Your task to perform on an android device: Open Google Chrome and open the bookmarks view Image 0: 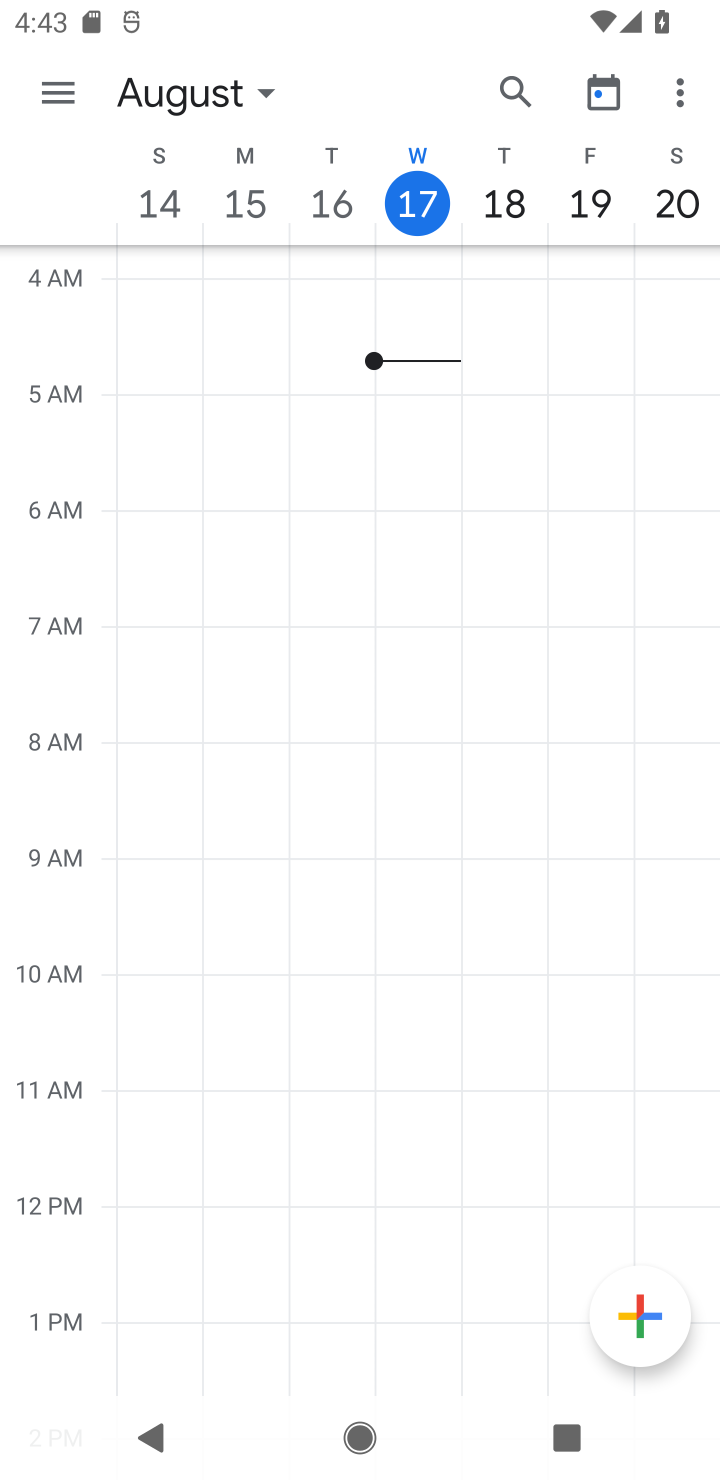
Step 0: press home button
Your task to perform on an android device: Open Google Chrome and open the bookmarks view Image 1: 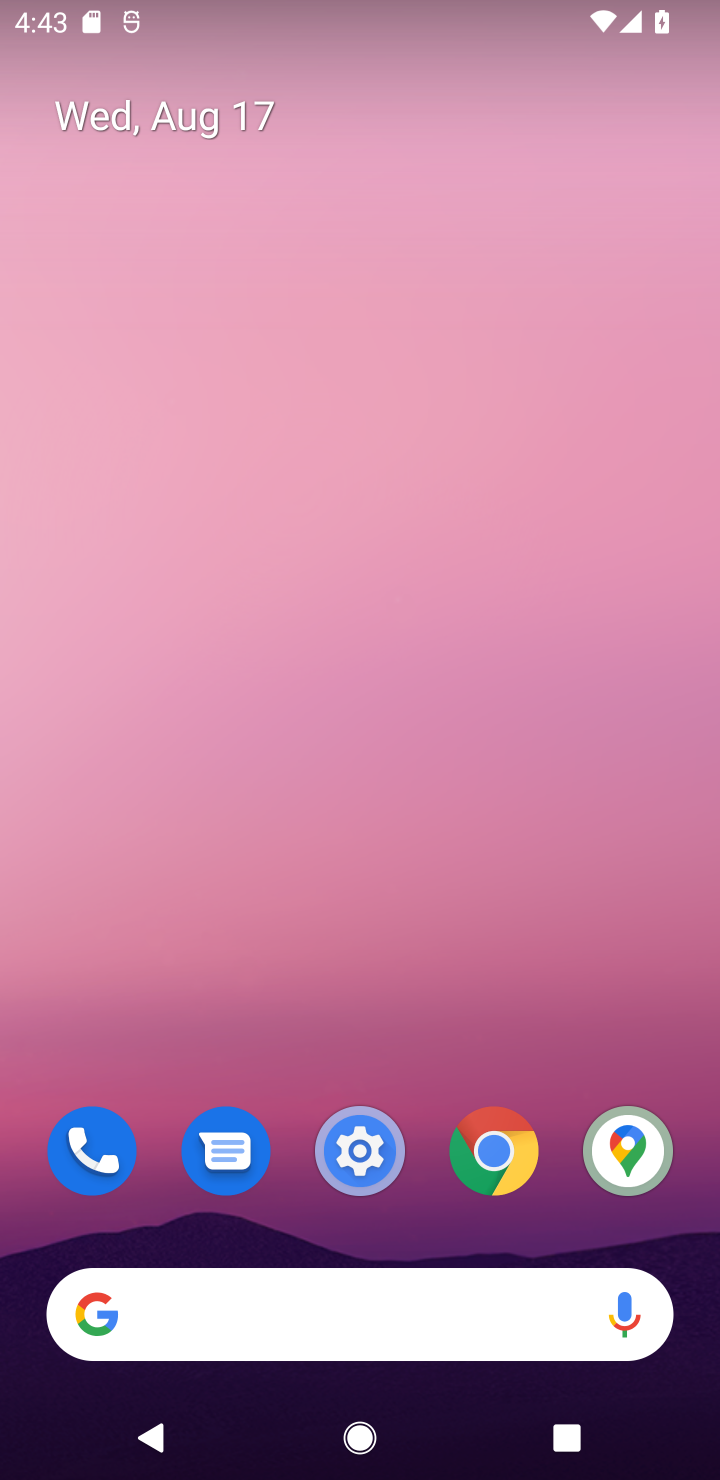
Step 1: drag from (411, 1290) to (420, 557)
Your task to perform on an android device: Open Google Chrome and open the bookmarks view Image 2: 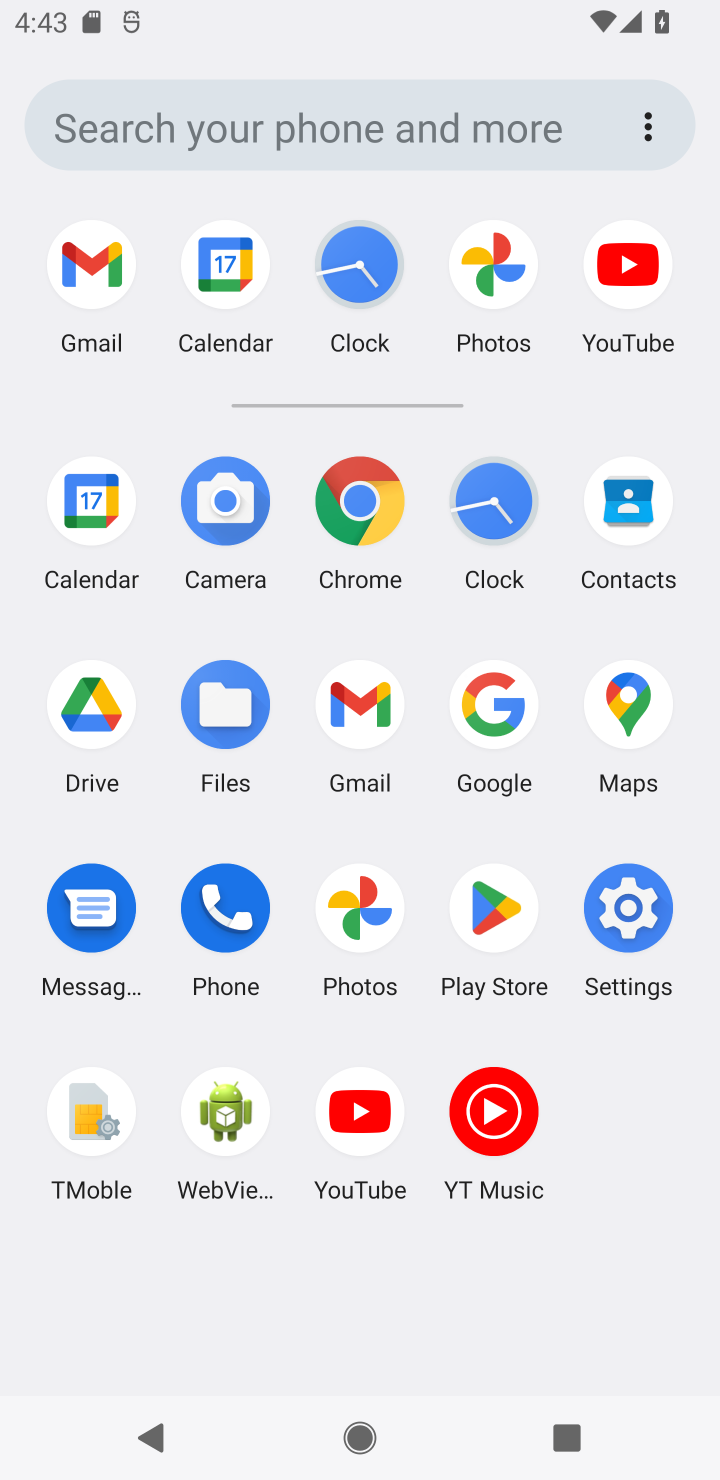
Step 2: click (359, 503)
Your task to perform on an android device: Open Google Chrome and open the bookmarks view Image 3: 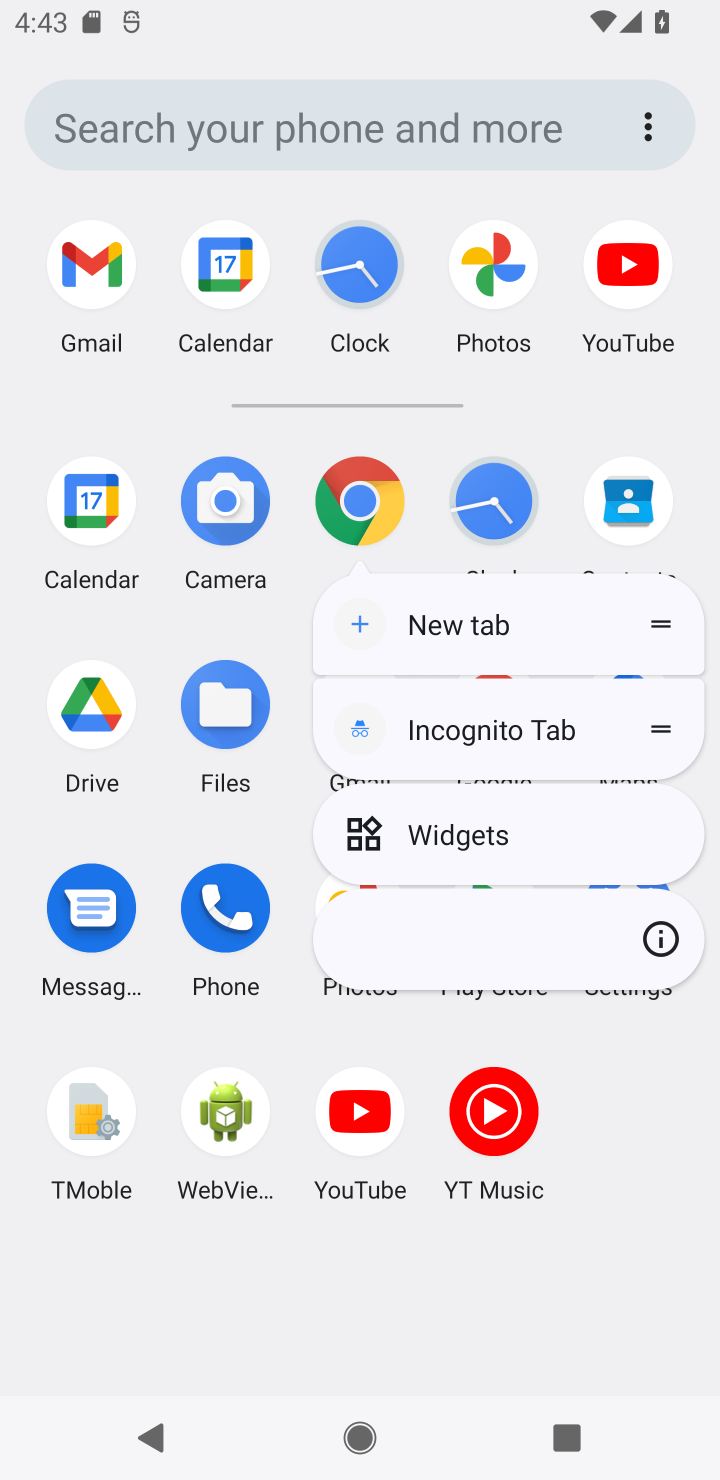
Step 3: click (359, 503)
Your task to perform on an android device: Open Google Chrome and open the bookmarks view Image 4: 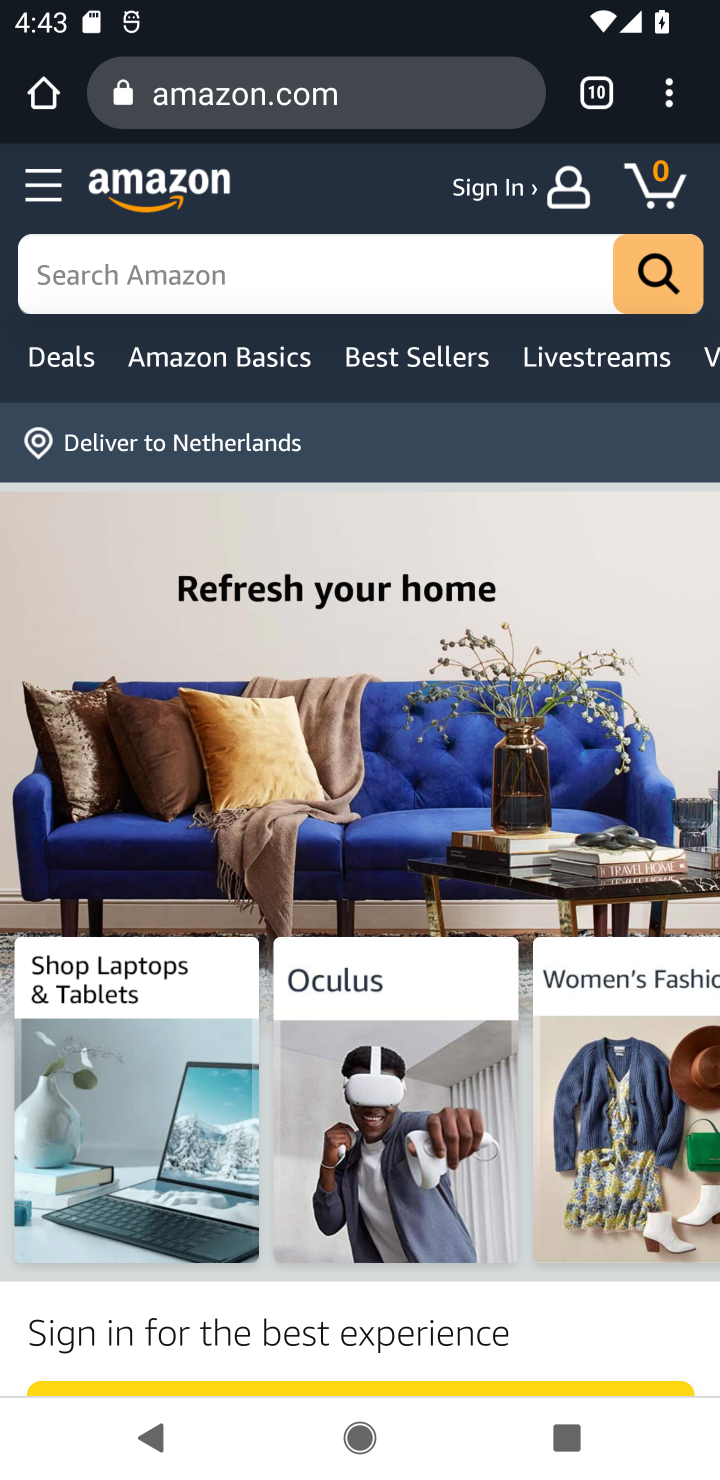
Step 4: click (682, 75)
Your task to perform on an android device: Open Google Chrome and open the bookmarks view Image 5: 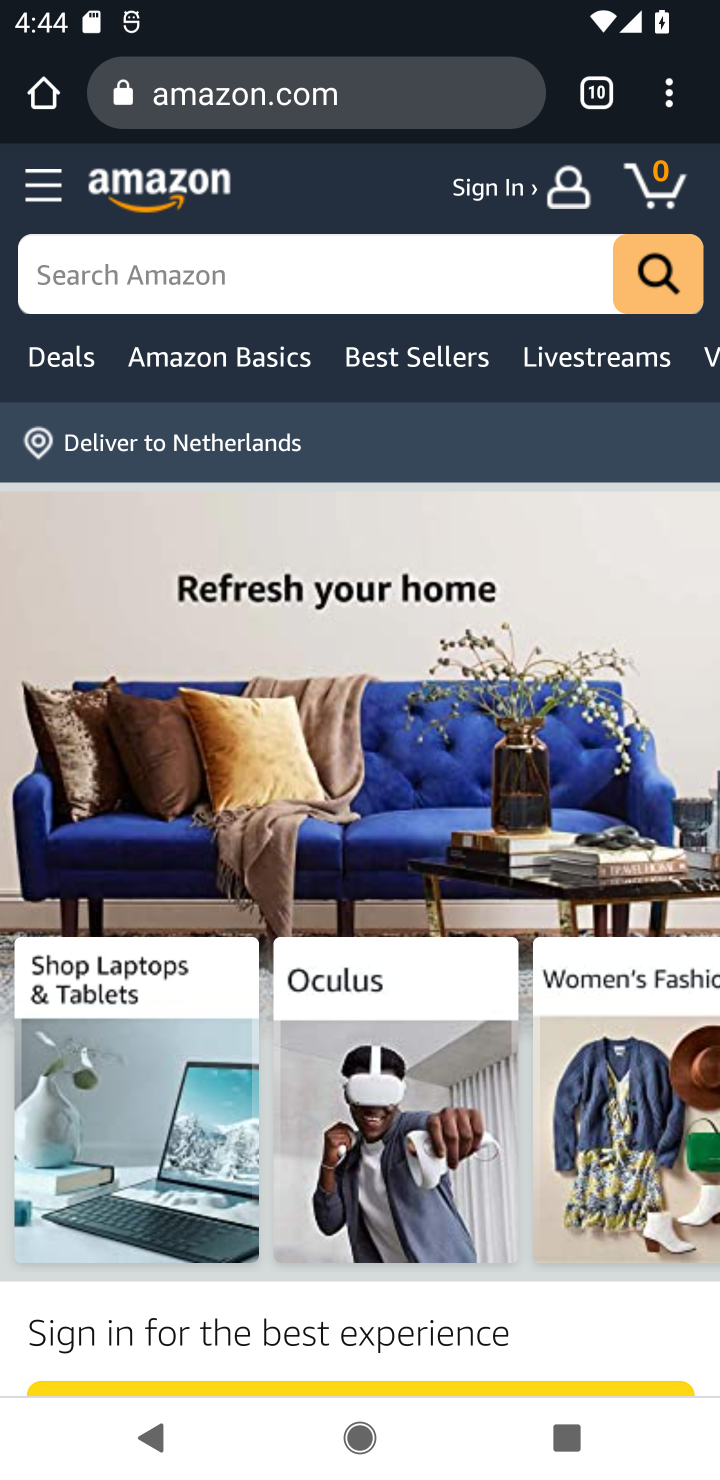
Step 5: click (693, 108)
Your task to perform on an android device: Open Google Chrome and open the bookmarks view Image 6: 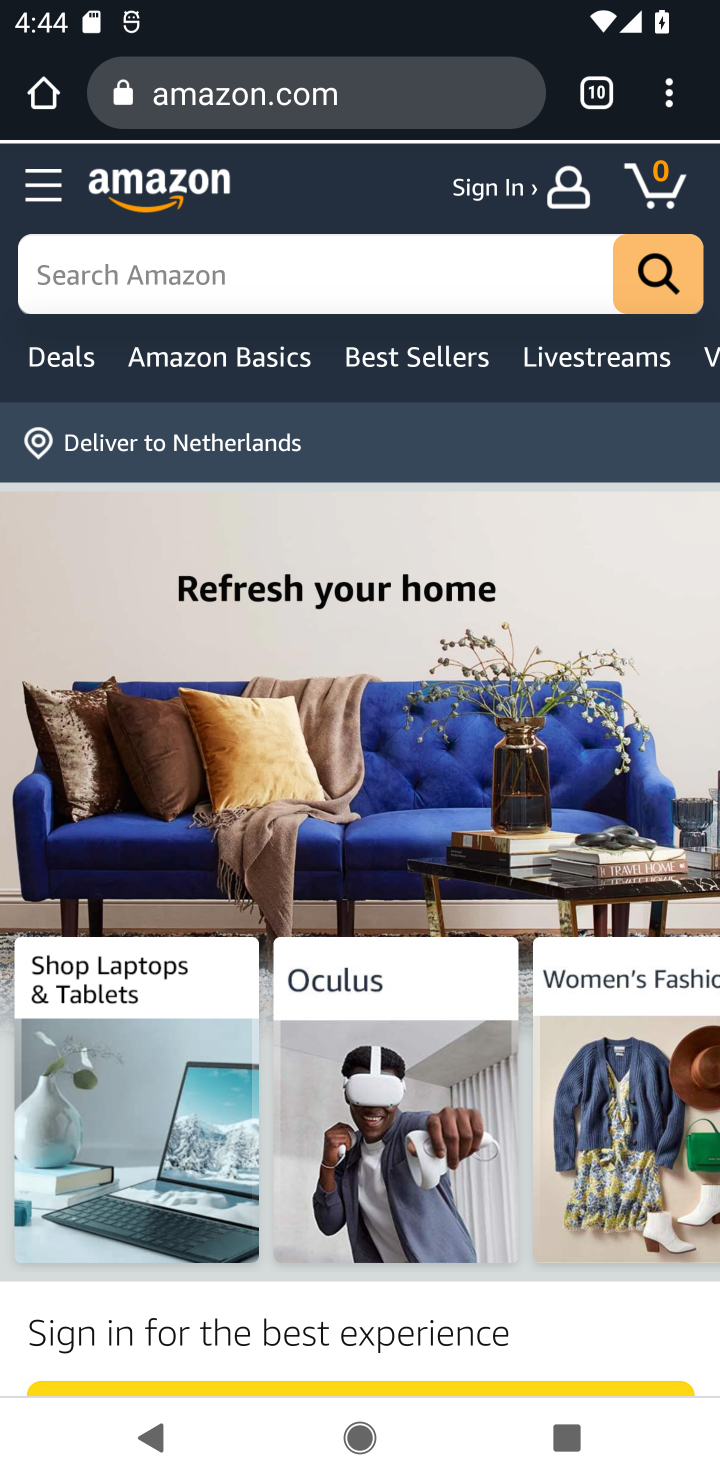
Step 6: click (650, 108)
Your task to perform on an android device: Open Google Chrome and open the bookmarks view Image 7: 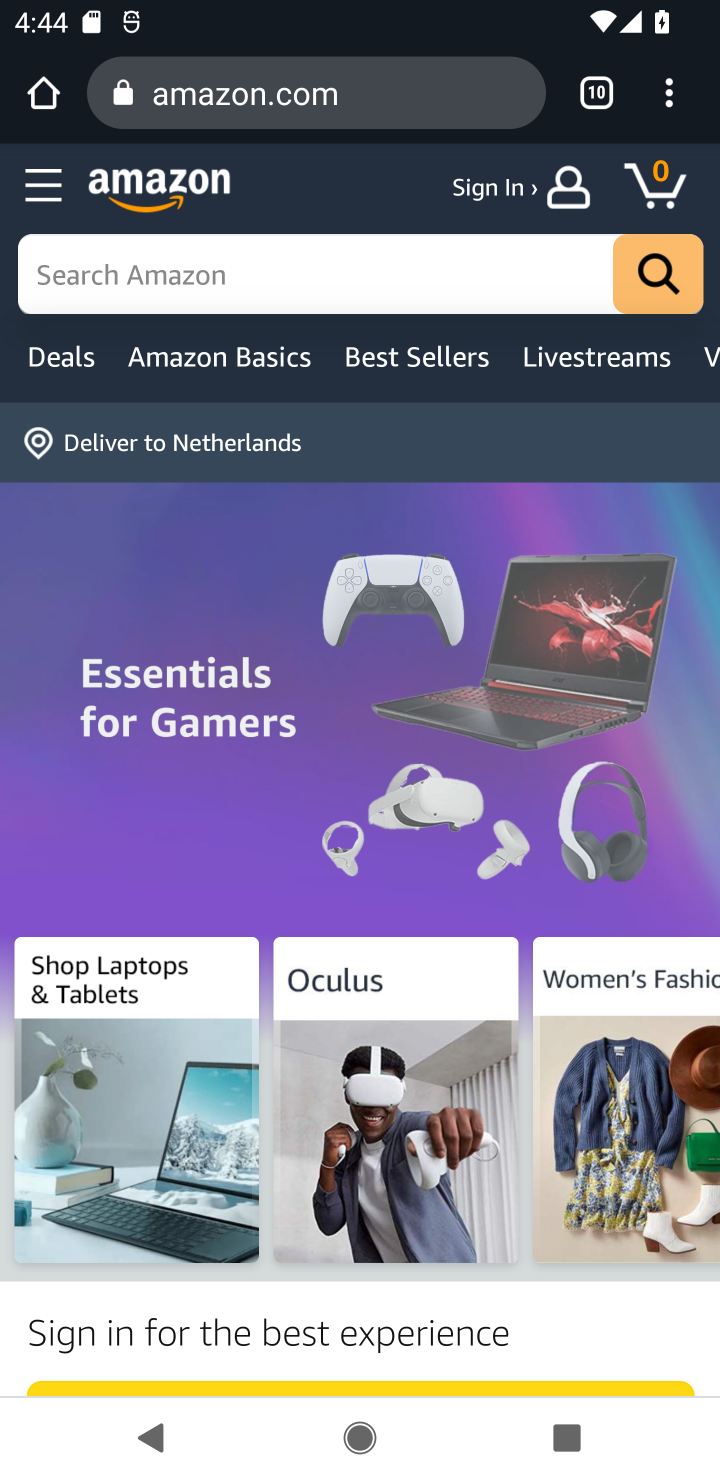
Step 7: click (677, 88)
Your task to perform on an android device: Open Google Chrome and open the bookmarks view Image 8: 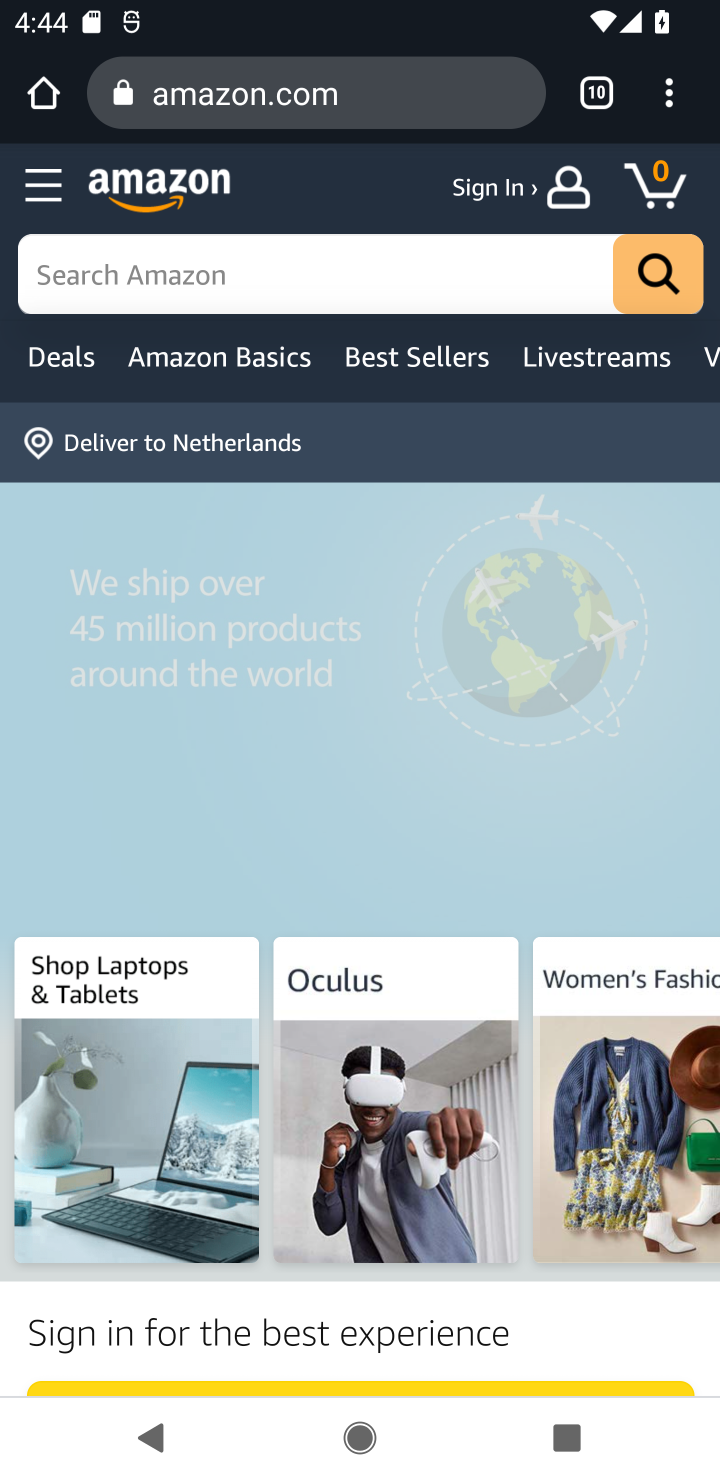
Step 8: click (669, 99)
Your task to perform on an android device: Open Google Chrome and open the bookmarks view Image 9: 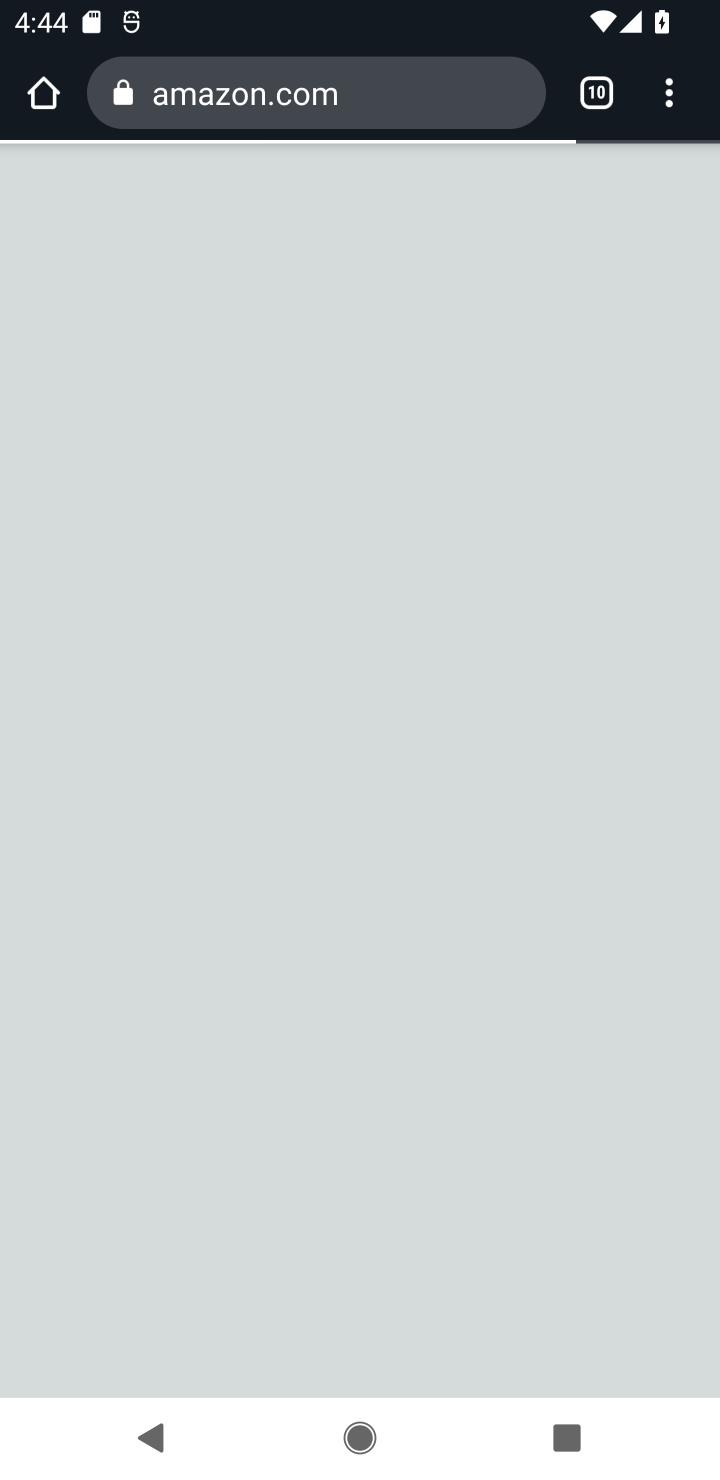
Step 9: click (669, 99)
Your task to perform on an android device: Open Google Chrome and open the bookmarks view Image 10: 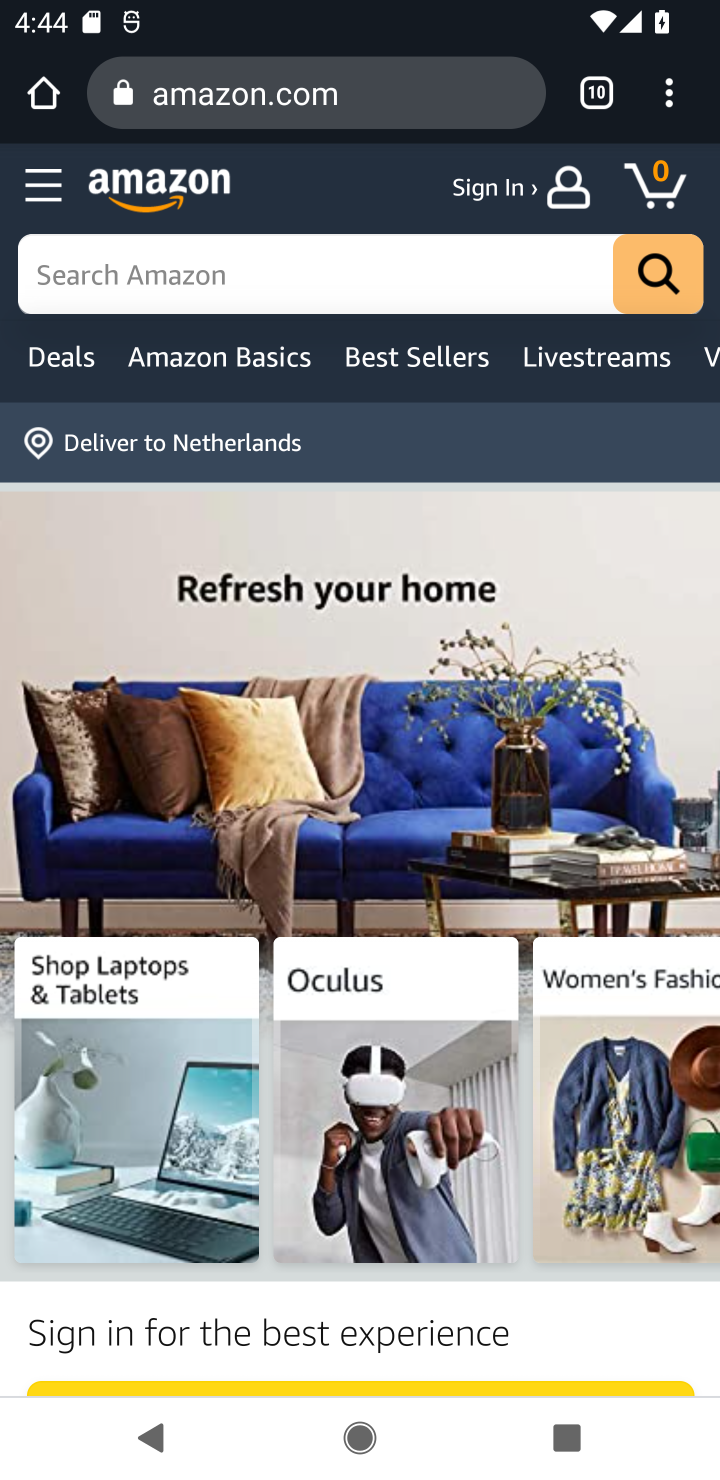
Step 10: click (669, 99)
Your task to perform on an android device: Open Google Chrome and open the bookmarks view Image 11: 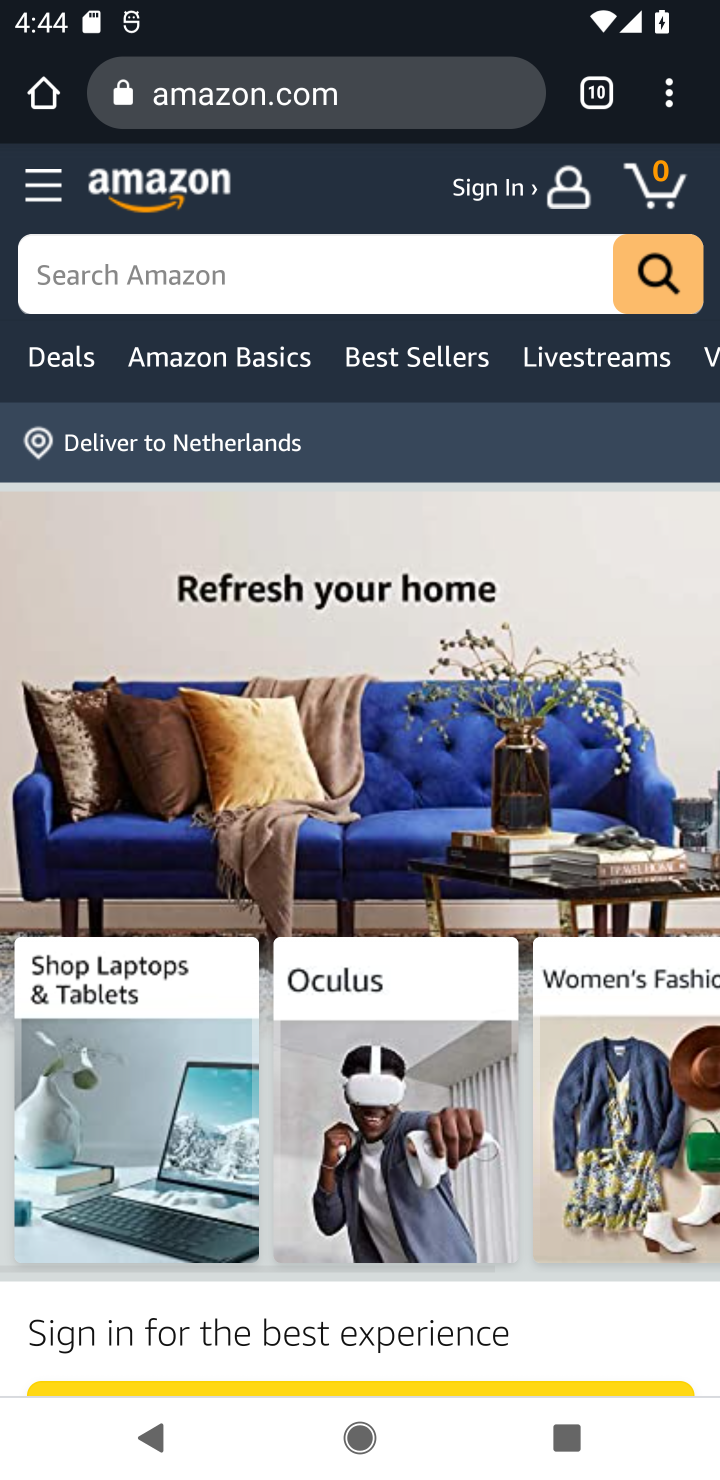
Step 11: click (669, 99)
Your task to perform on an android device: Open Google Chrome and open the bookmarks view Image 12: 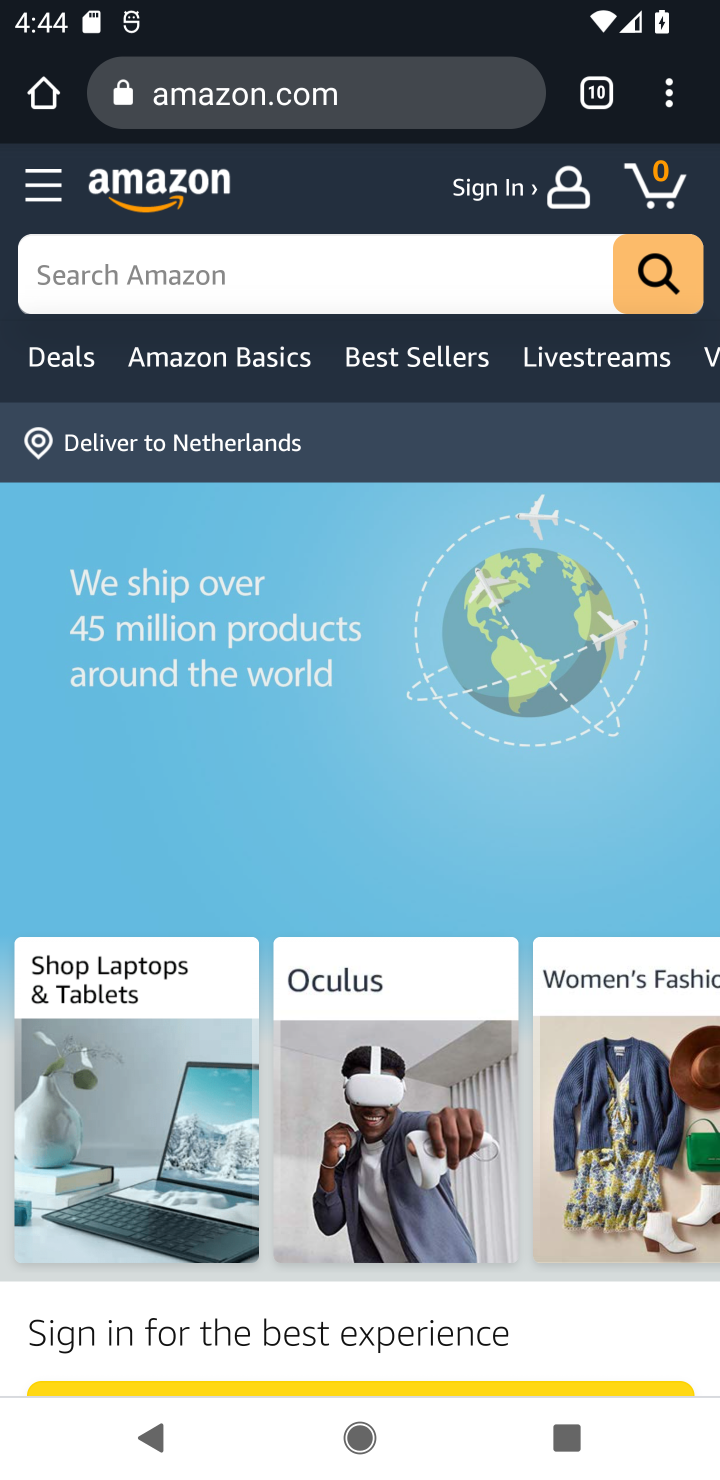
Step 12: click (669, 99)
Your task to perform on an android device: Open Google Chrome and open the bookmarks view Image 13: 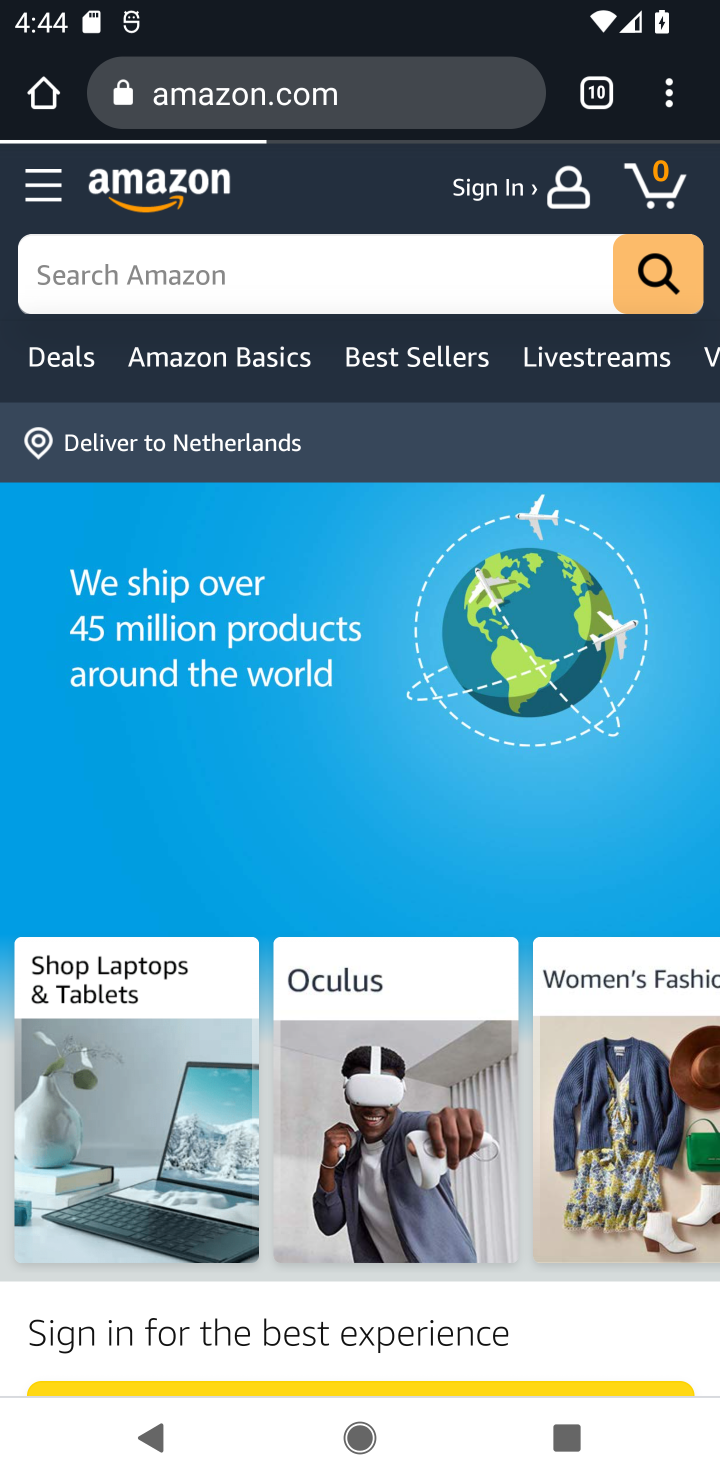
Step 13: click (669, 99)
Your task to perform on an android device: Open Google Chrome and open the bookmarks view Image 14: 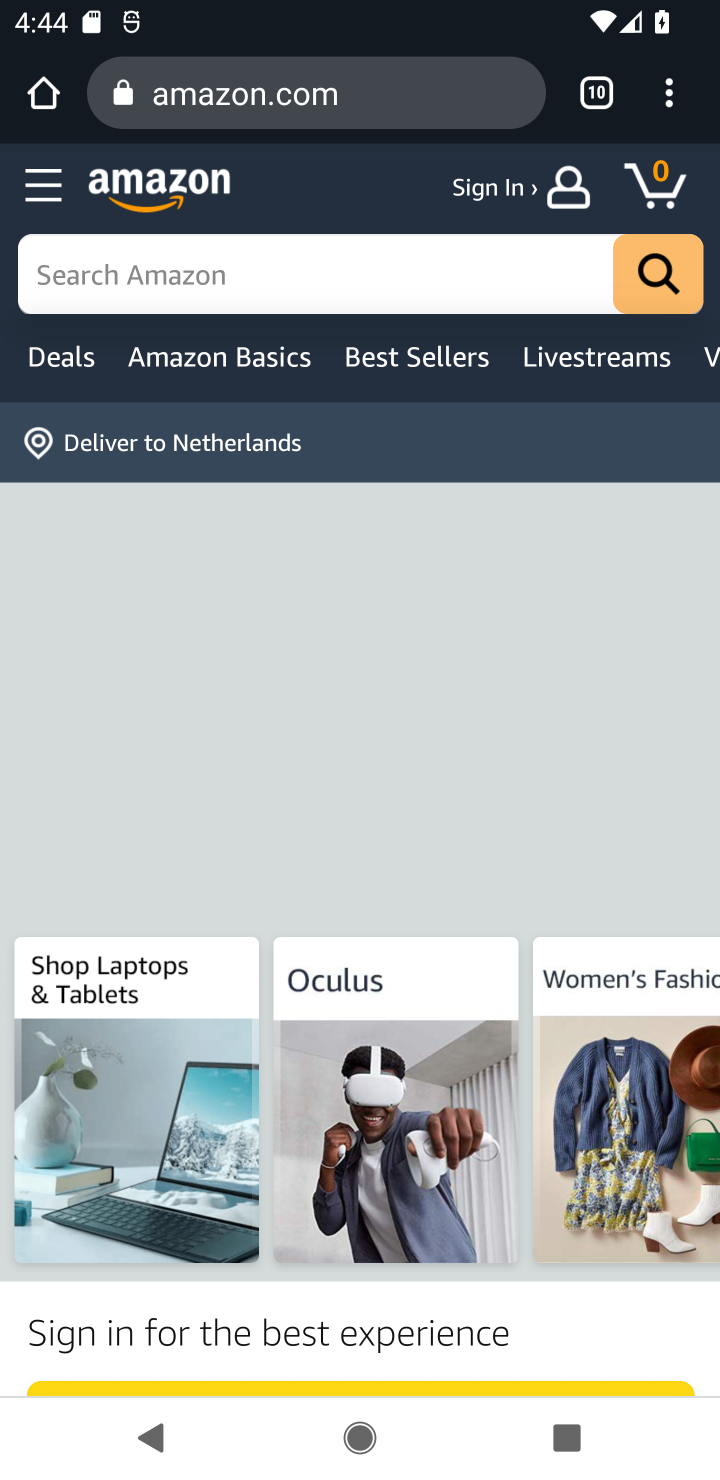
Step 14: click (669, 99)
Your task to perform on an android device: Open Google Chrome and open the bookmarks view Image 15: 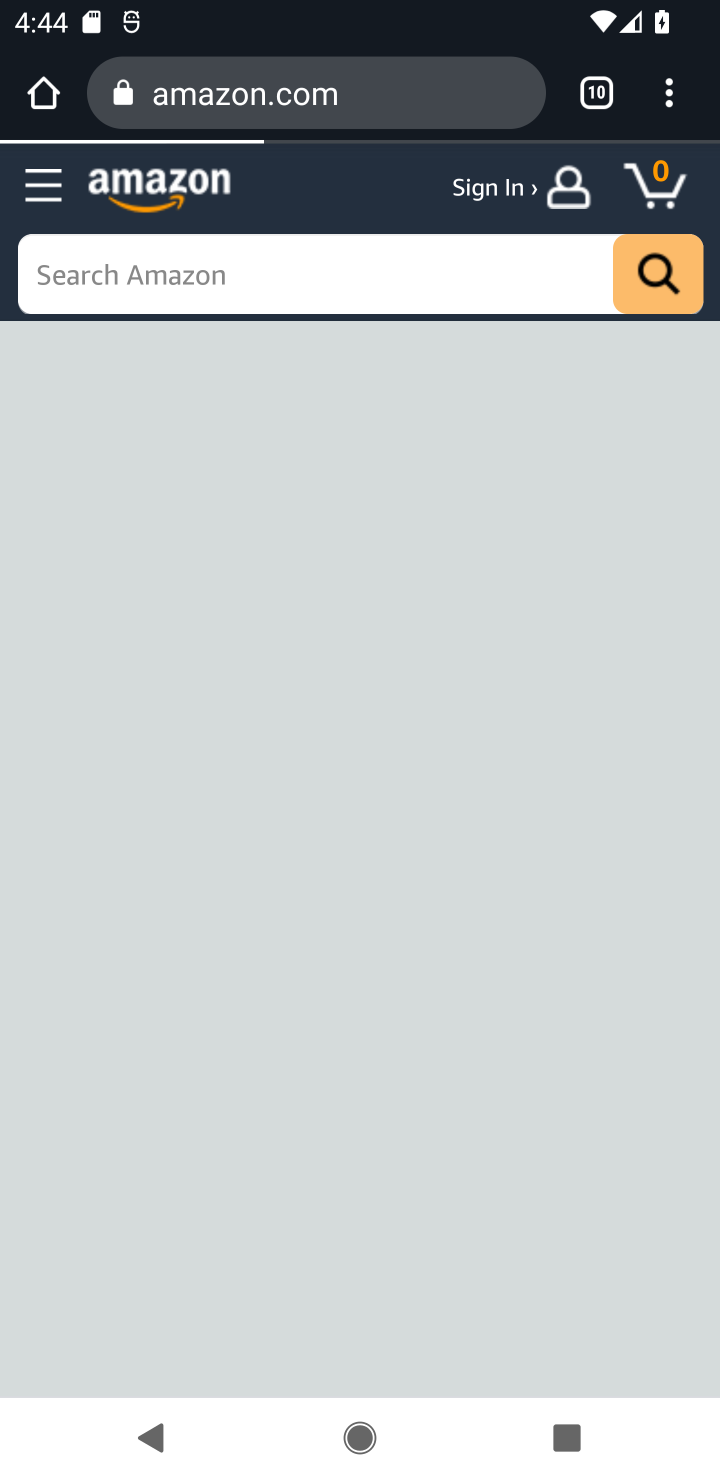
Step 15: click (657, 103)
Your task to perform on an android device: Open Google Chrome and open the bookmarks view Image 16: 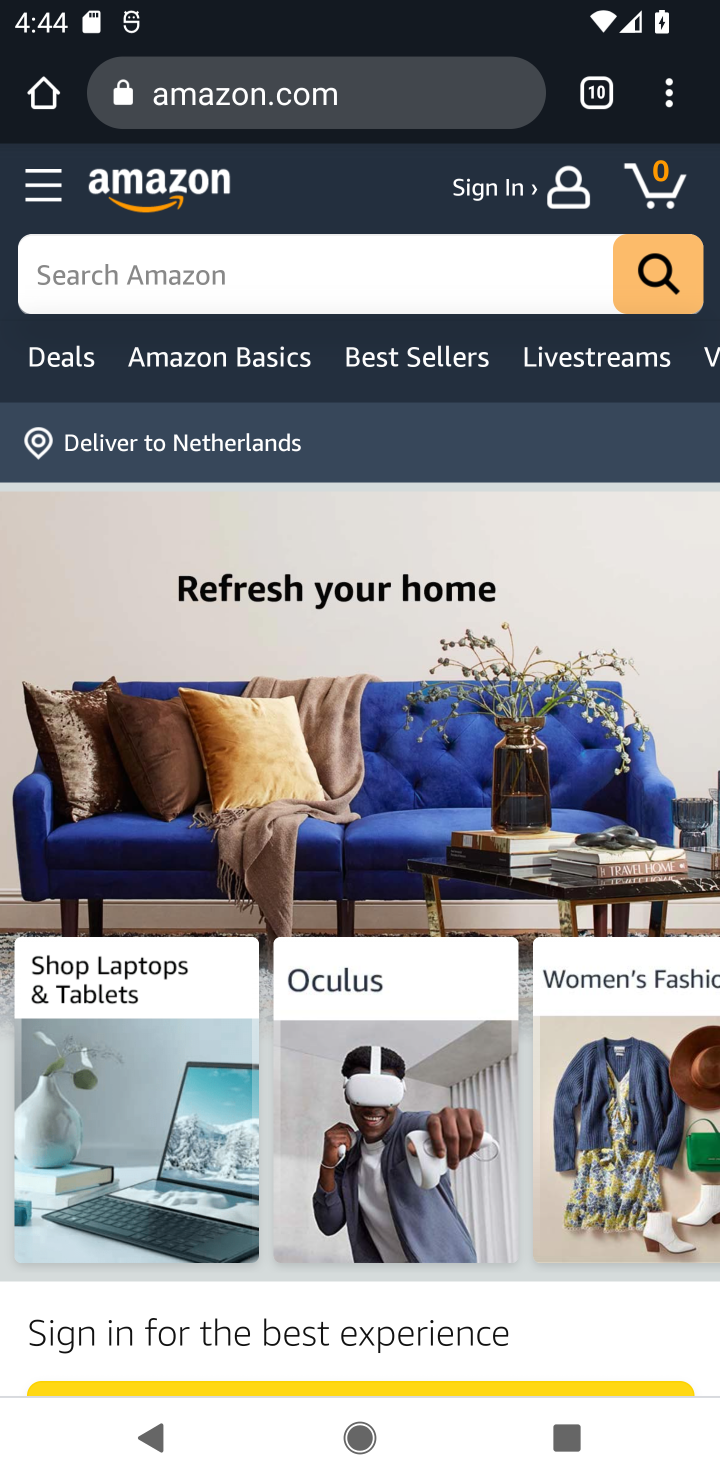
Step 16: click (642, 98)
Your task to perform on an android device: Open Google Chrome and open the bookmarks view Image 17: 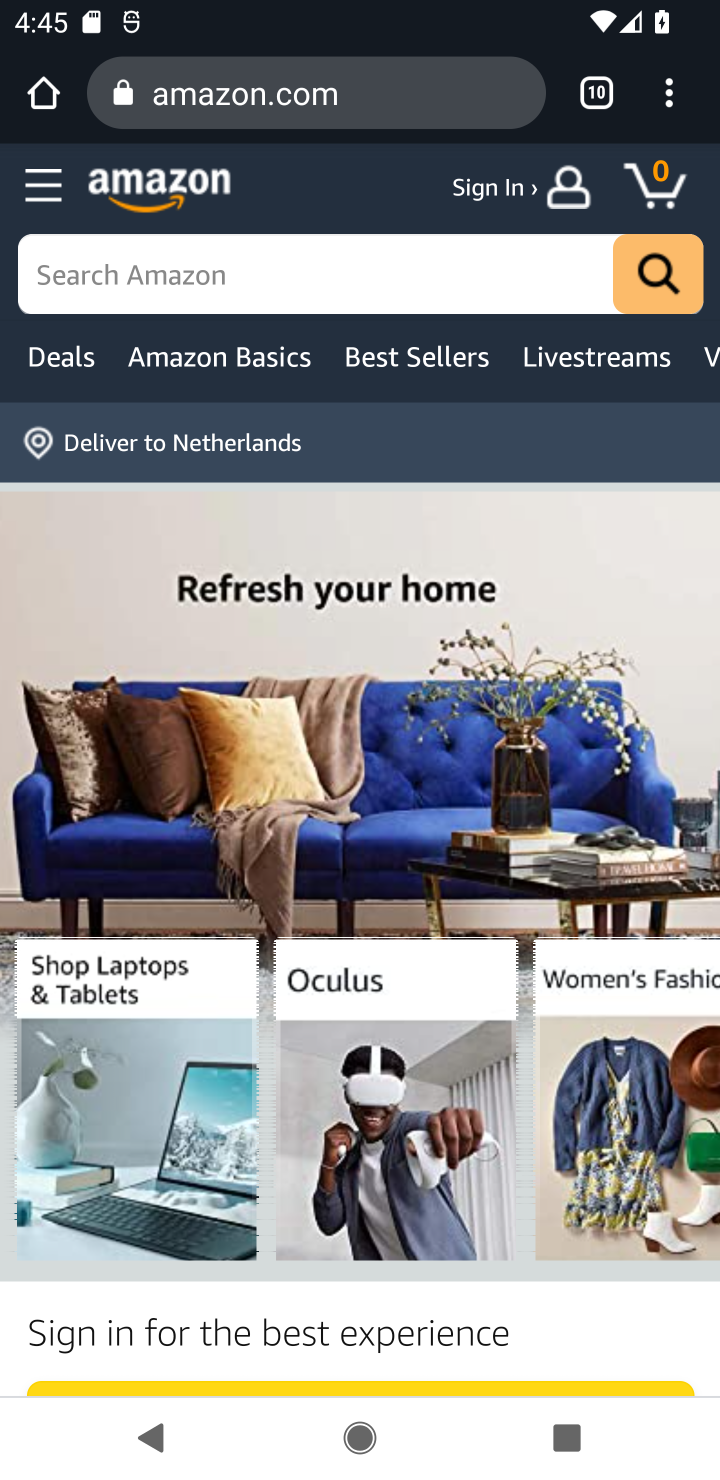
Step 17: click (659, 101)
Your task to perform on an android device: Open Google Chrome and open the bookmarks view Image 18: 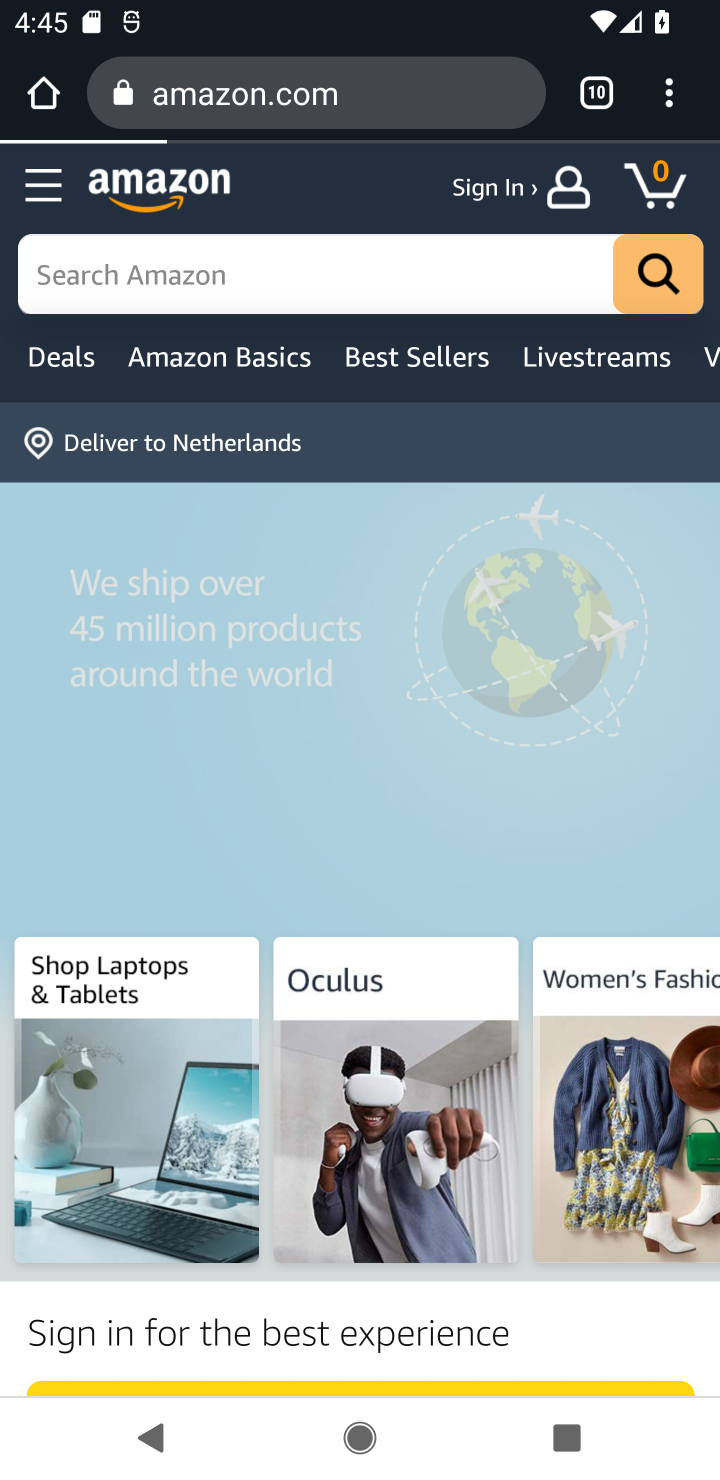
Step 18: click (659, 101)
Your task to perform on an android device: Open Google Chrome and open the bookmarks view Image 19: 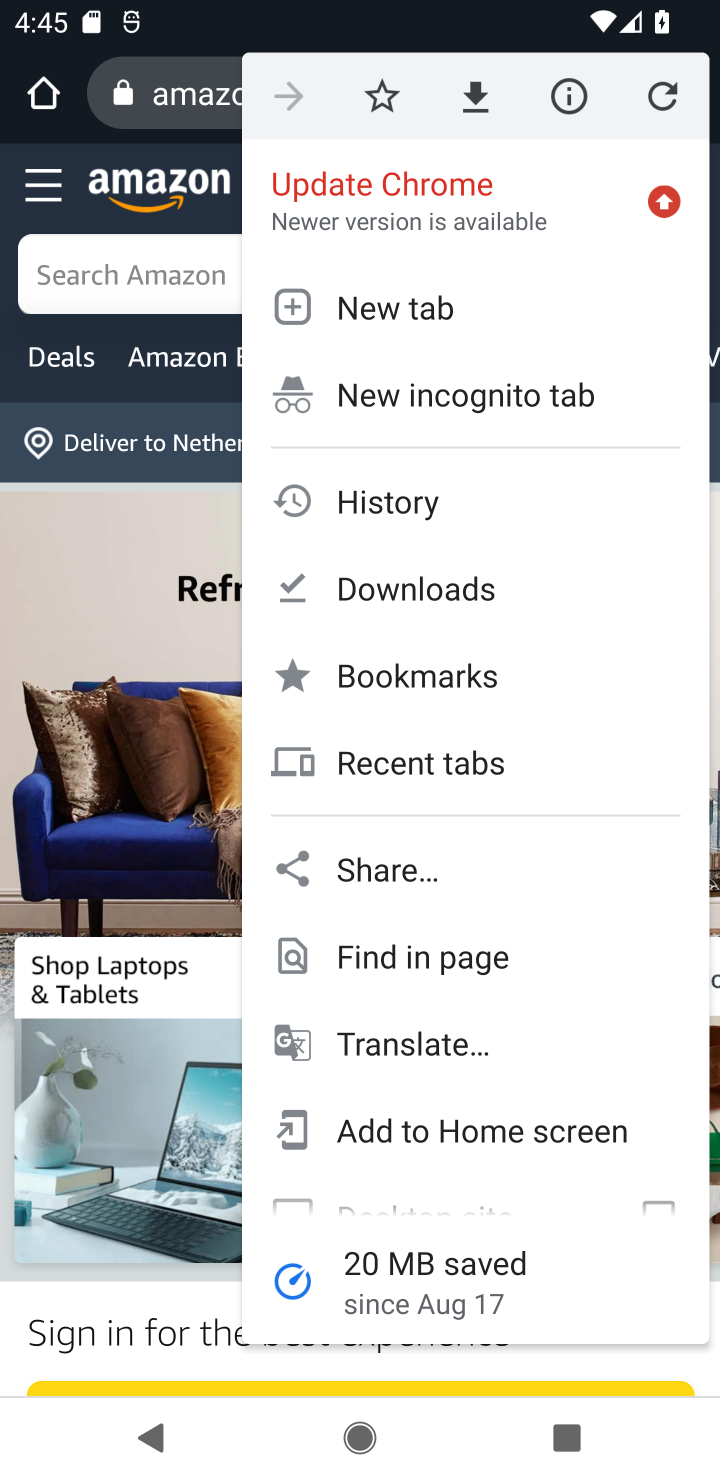
Step 19: click (452, 671)
Your task to perform on an android device: Open Google Chrome and open the bookmarks view Image 20: 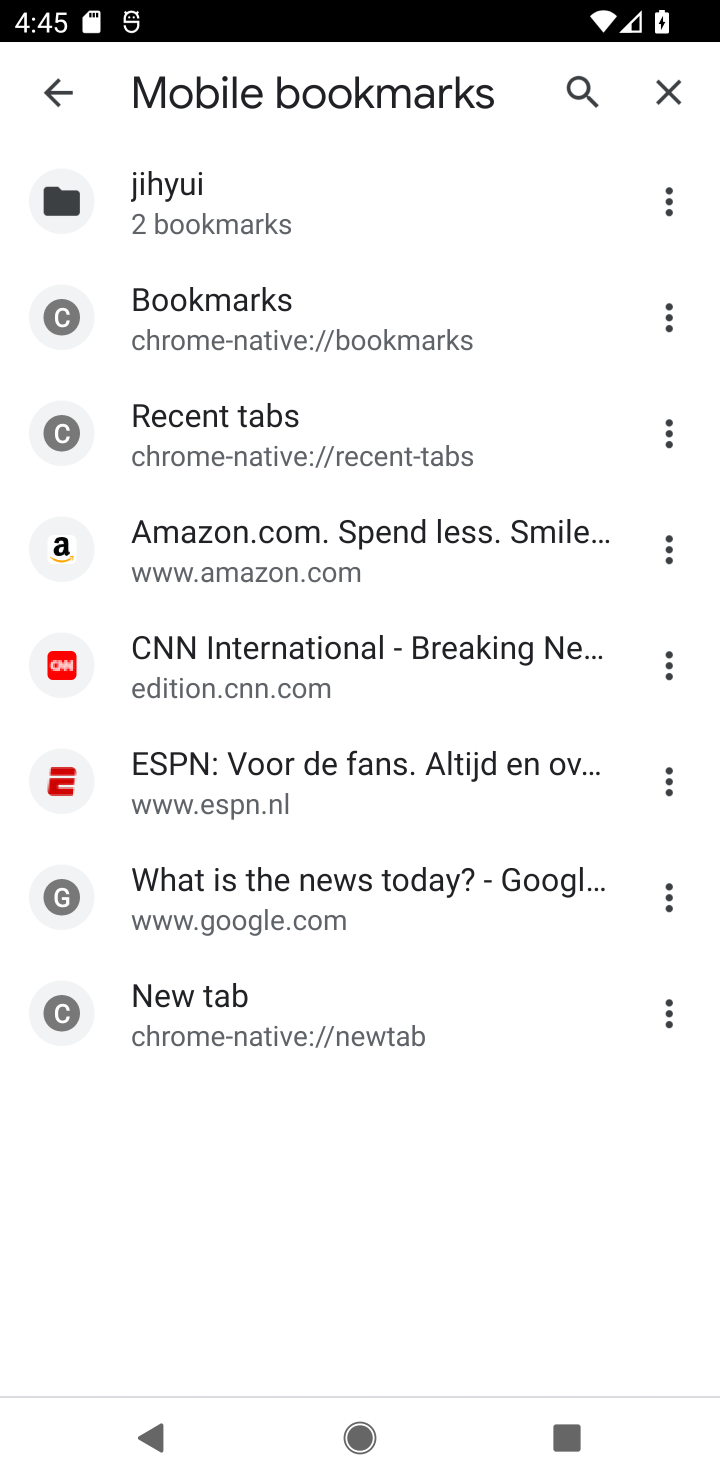
Step 20: task complete